Your task to perform on an android device: change the clock style Image 0: 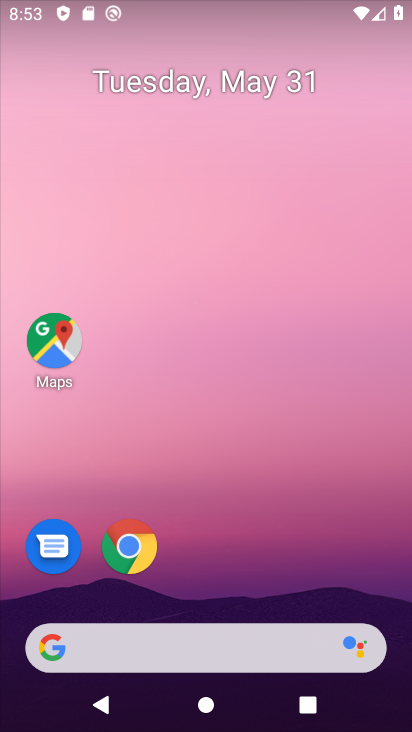
Step 0: drag from (390, 700) to (362, 218)
Your task to perform on an android device: change the clock style Image 1: 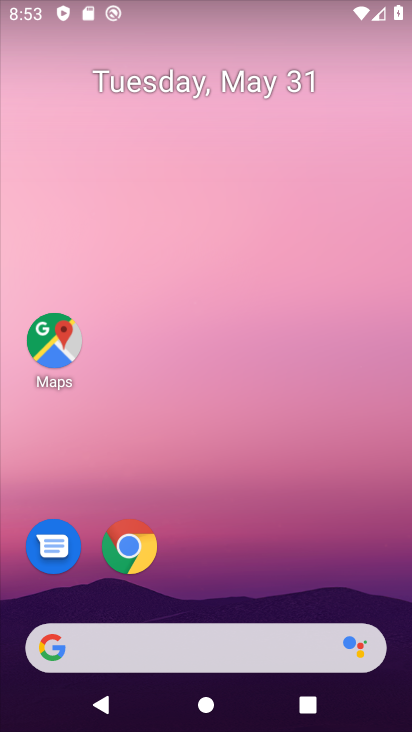
Step 1: drag from (395, 717) to (338, 250)
Your task to perform on an android device: change the clock style Image 2: 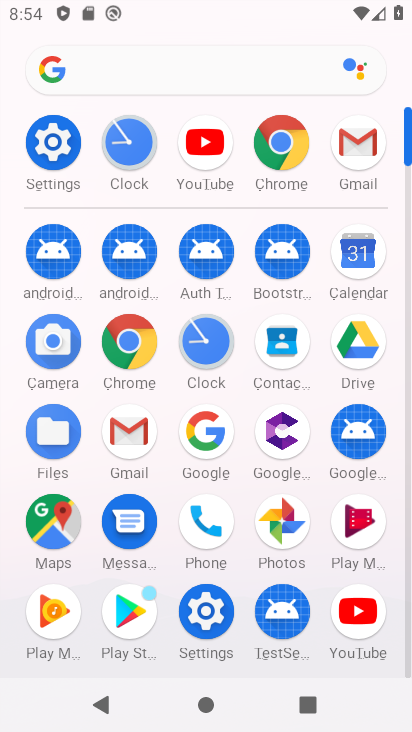
Step 2: click (210, 347)
Your task to perform on an android device: change the clock style Image 3: 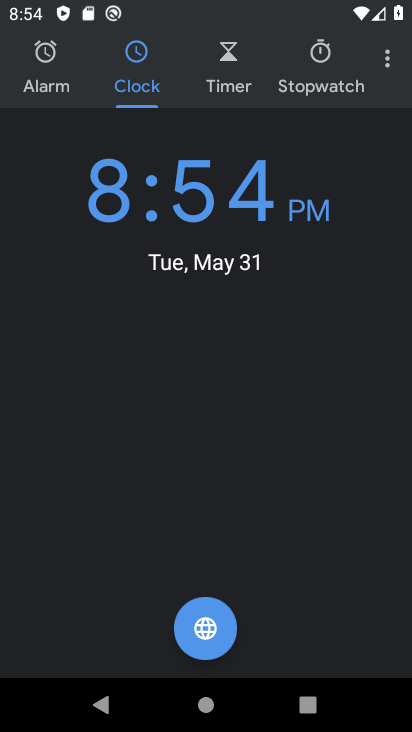
Step 3: click (388, 58)
Your task to perform on an android device: change the clock style Image 4: 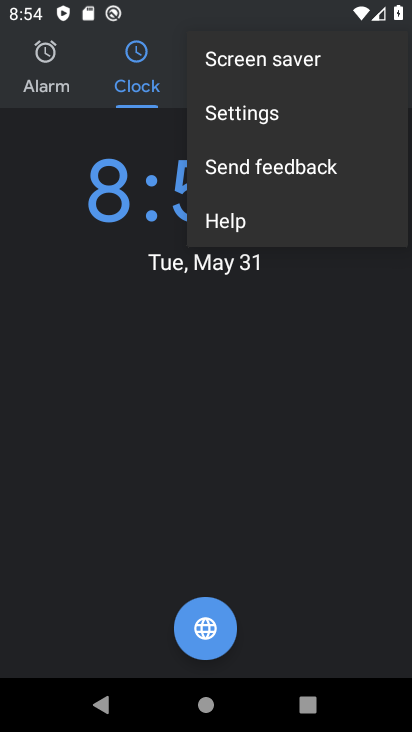
Step 4: click (227, 114)
Your task to perform on an android device: change the clock style Image 5: 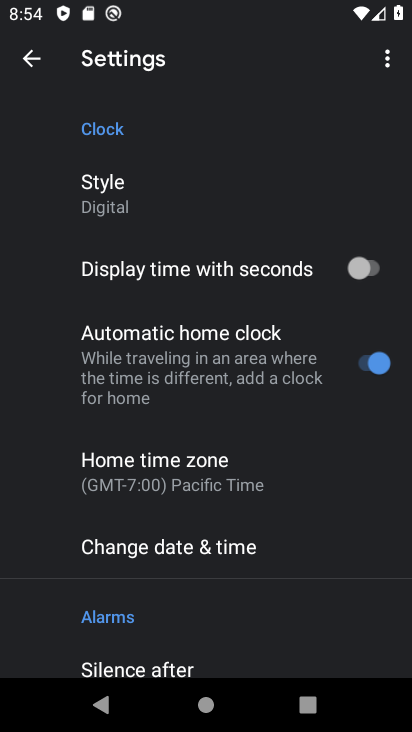
Step 5: click (97, 207)
Your task to perform on an android device: change the clock style Image 6: 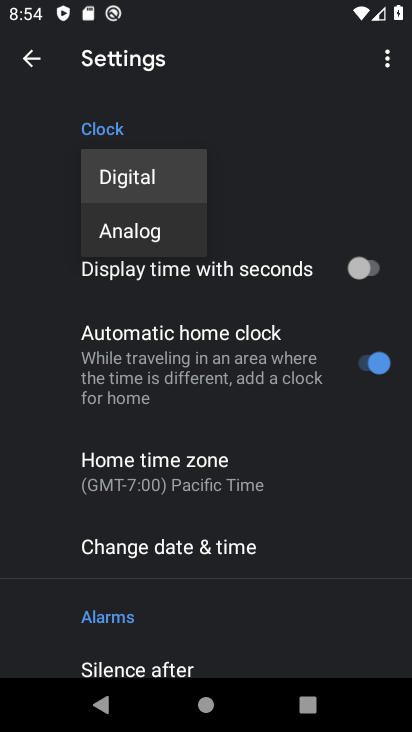
Step 6: click (139, 237)
Your task to perform on an android device: change the clock style Image 7: 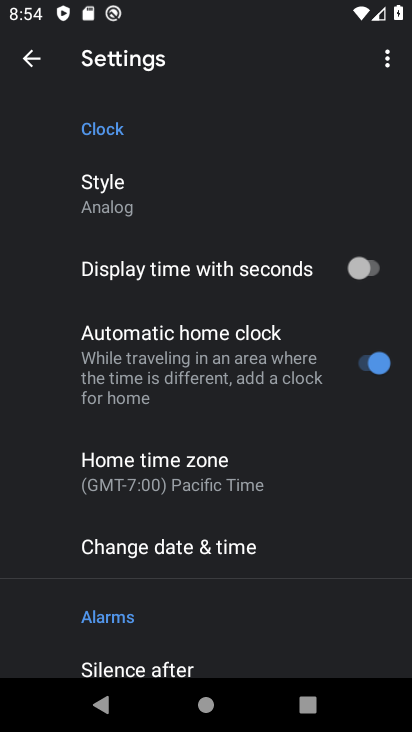
Step 7: task complete